Your task to perform on an android device: Is it going to rain tomorrow? Image 0: 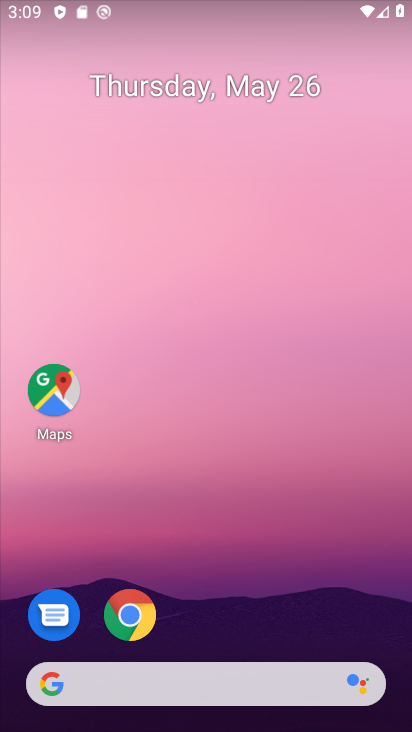
Step 0: click (183, 674)
Your task to perform on an android device: Is it going to rain tomorrow? Image 1: 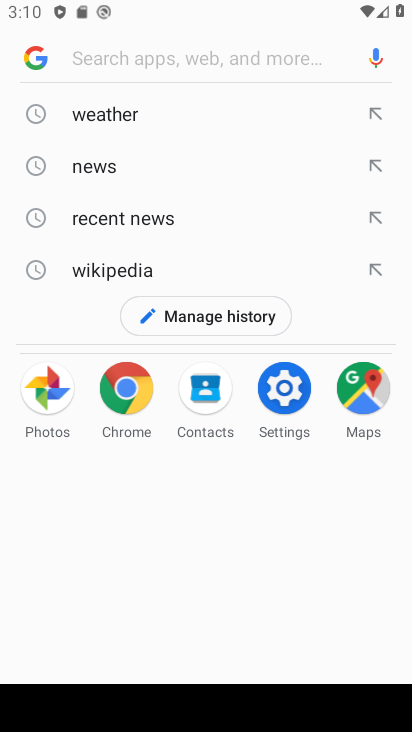
Step 1: type "is it going to rain tomorrow?"
Your task to perform on an android device: Is it going to rain tomorrow? Image 2: 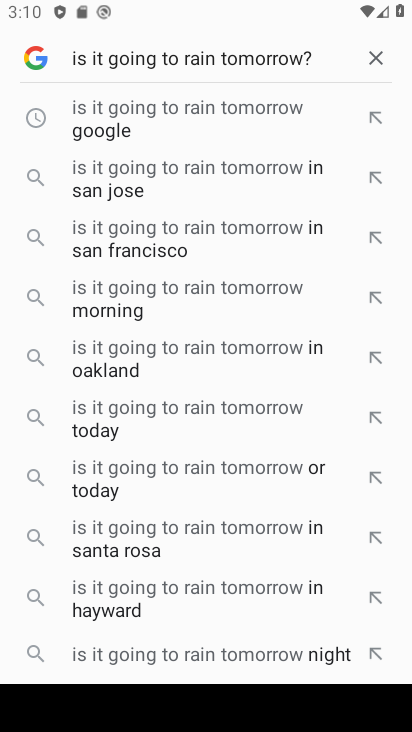
Step 2: type ""
Your task to perform on an android device: Is it going to rain tomorrow? Image 3: 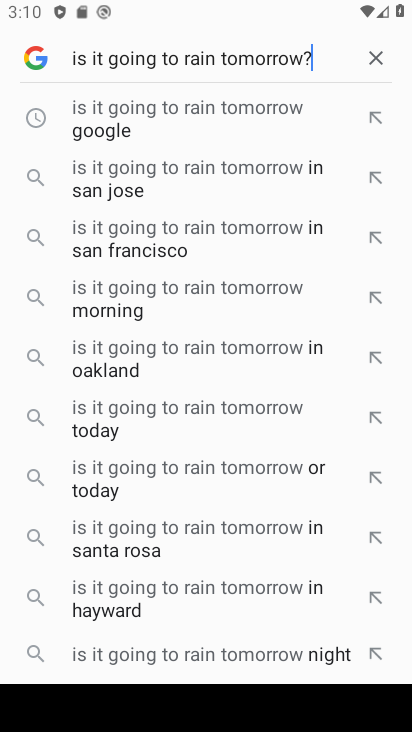
Step 3: click (204, 104)
Your task to perform on an android device: Is it going to rain tomorrow? Image 4: 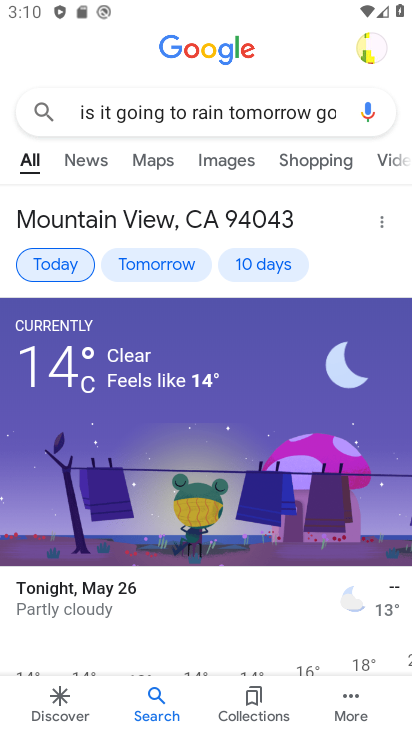
Step 4: drag from (259, 460) to (239, 286)
Your task to perform on an android device: Is it going to rain tomorrow? Image 5: 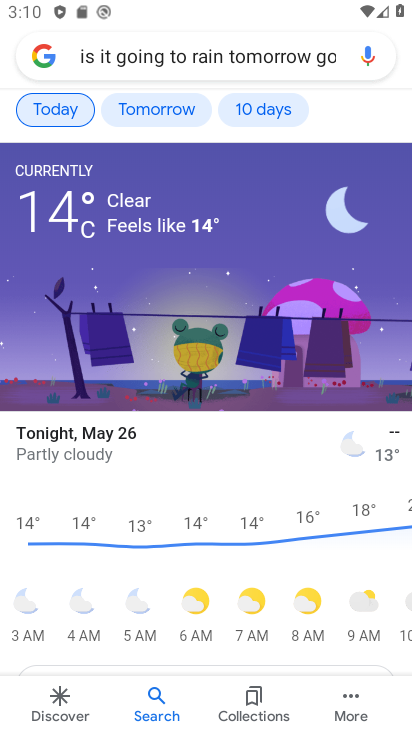
Step 5: click (159, 119)
Your task to perform on an android device: Is it going to rain tomorrow? Image 6: 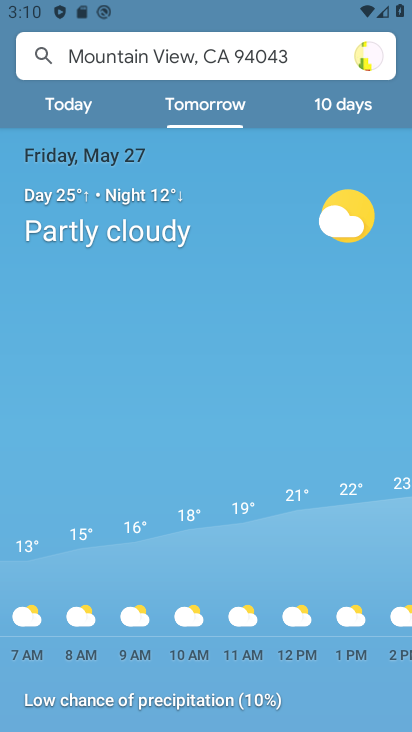
Step 6: task complete